Your task to perform on an android device: search for starred emails in the gmail app Image 0: 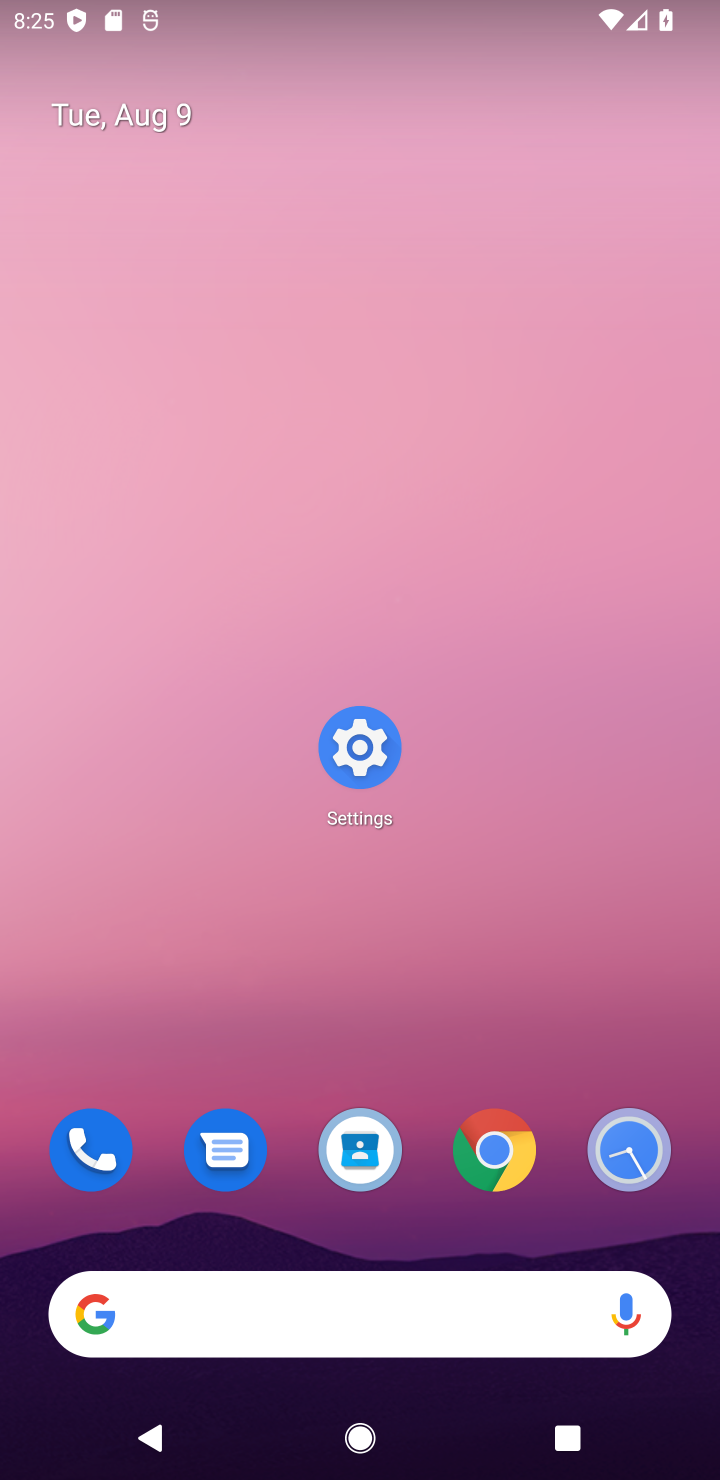
Step 0: drag from (380, 1144) to (577, 279)
Your task to perform on an android device: search for starred emails in the gmail app Image 1: 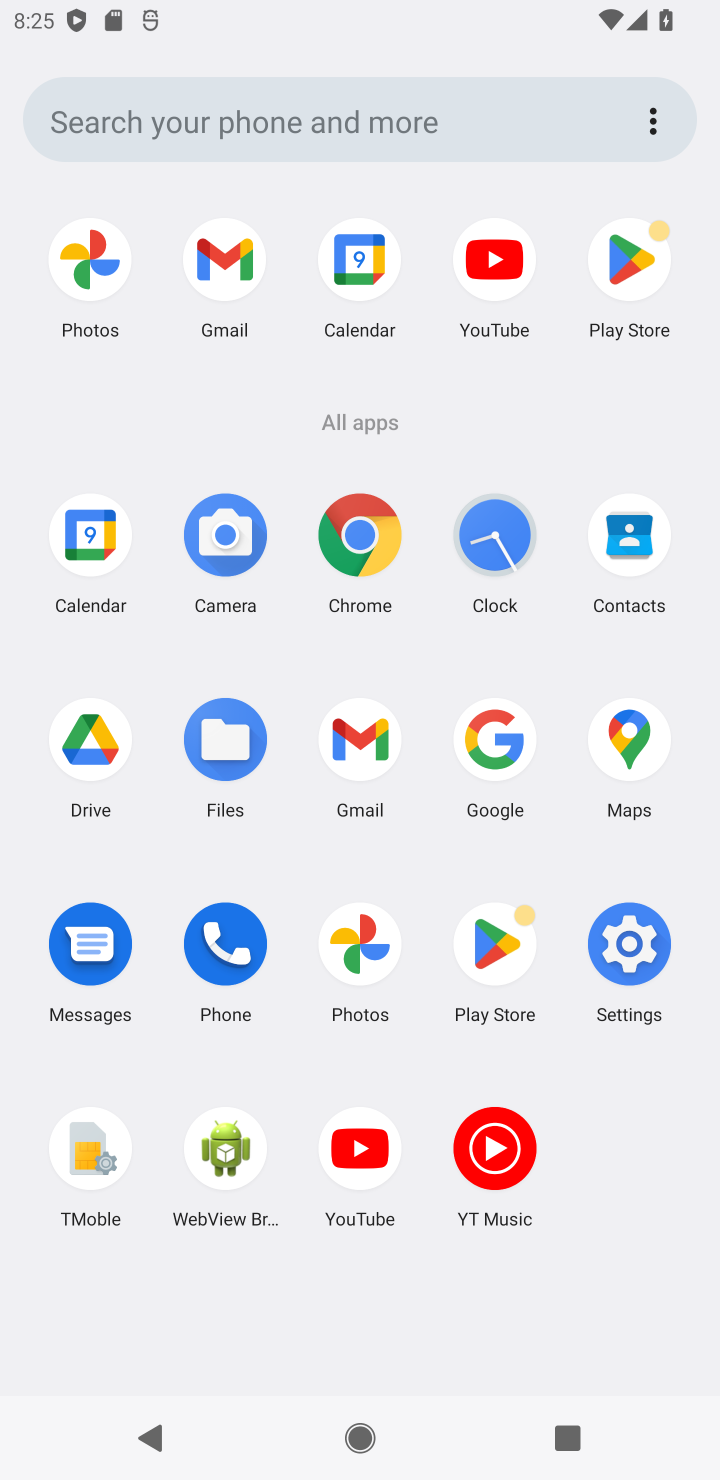
Step 1: click (360, 742)
Your task to perform on an android device: search for starred emails in the gmail app Image 2: 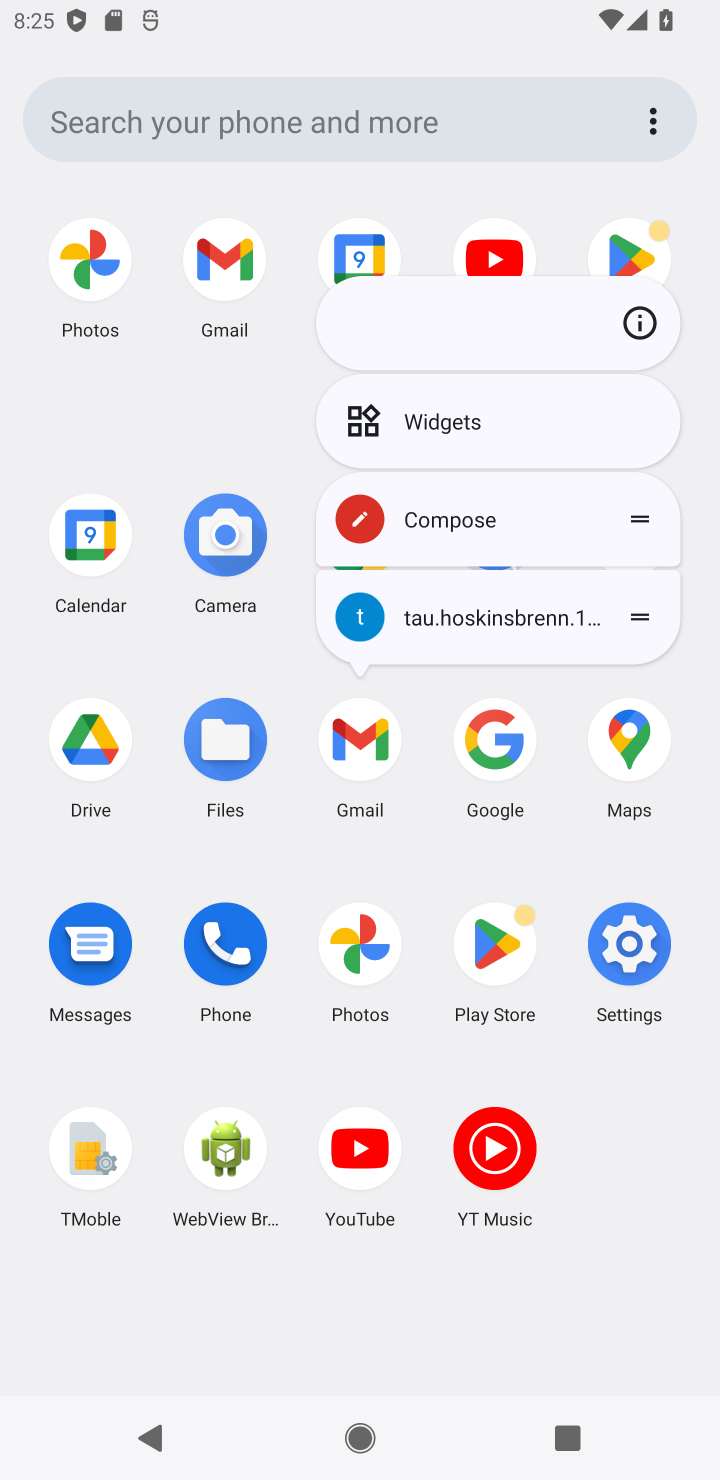
Step 2: click (351, 742)
Your task to perform on an android device: search for starred emails in the gmail app Image 3: 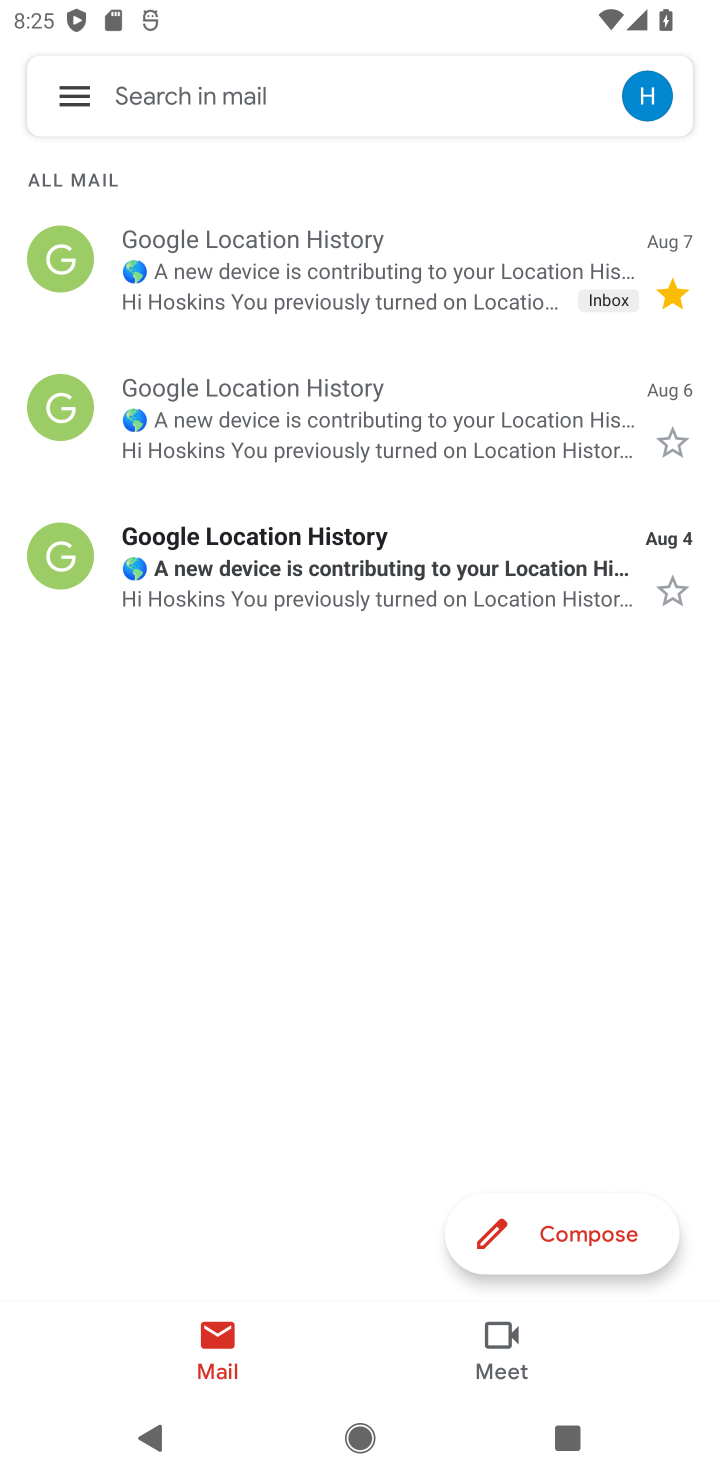
Step 3: click (73, 92)
Your task to perform on an android device: search for starred emails in the gmail app Image 4: 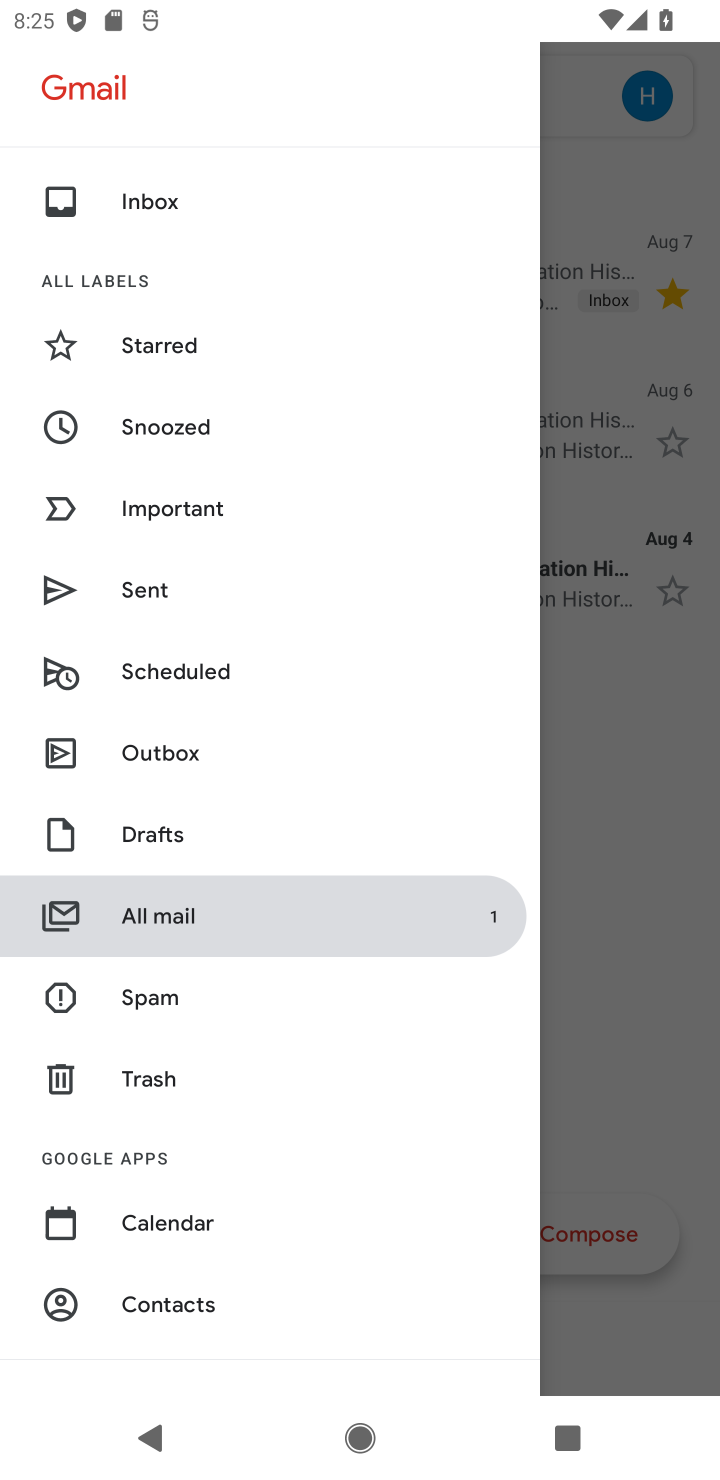
Step 4: click (187, 357)
Your task to perform on an android device: search for starred emails in the gmail app Image 5: 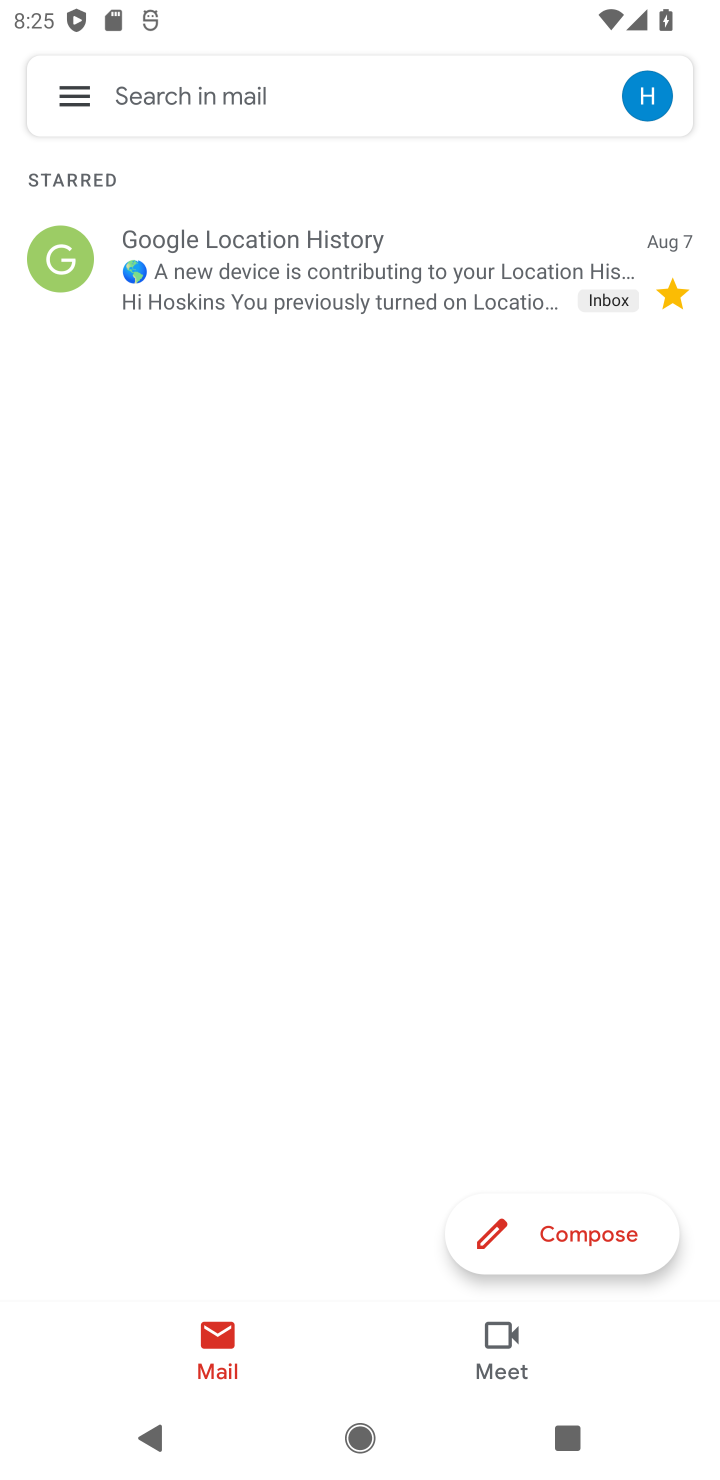
Step 5: task complete